Your task to perform on an android device: Show me the alarms in the clock app Image 0: 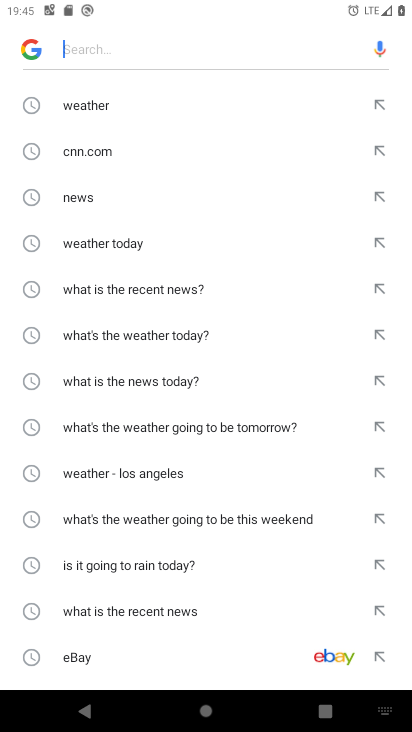
Step 0: press home button
Your task to perform on an android device: Show me the alarms in the clock app Image 1: 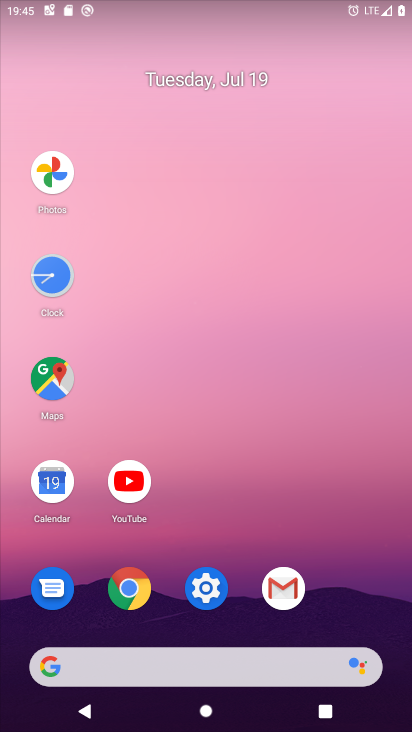
Step 1: click (46, 277)
Your task to perform on an android device: Show me the alarms in the clock app Image 2: 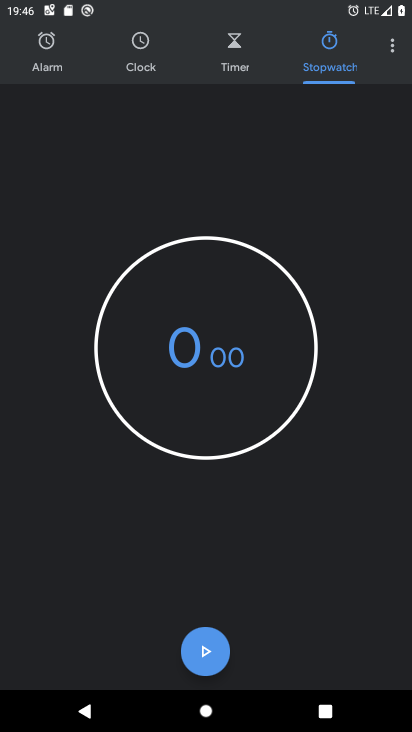
Step 2: click (42, 34)
Your task to perform on an android device: Show me the alarms in the clock app Image 3: 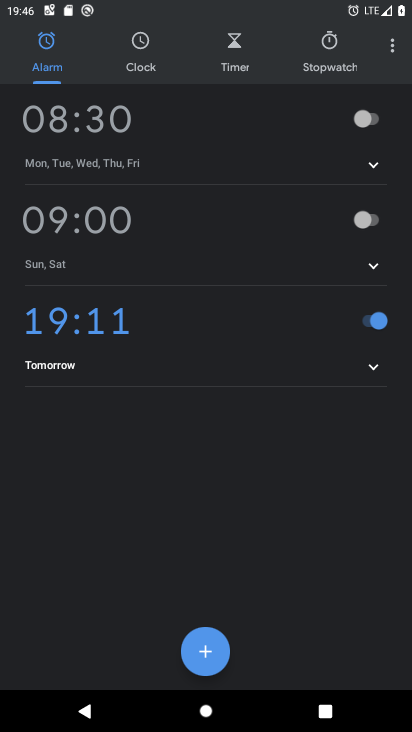
Step 3: task complete